Your task to perform on an android device: Go to settings Image 0: 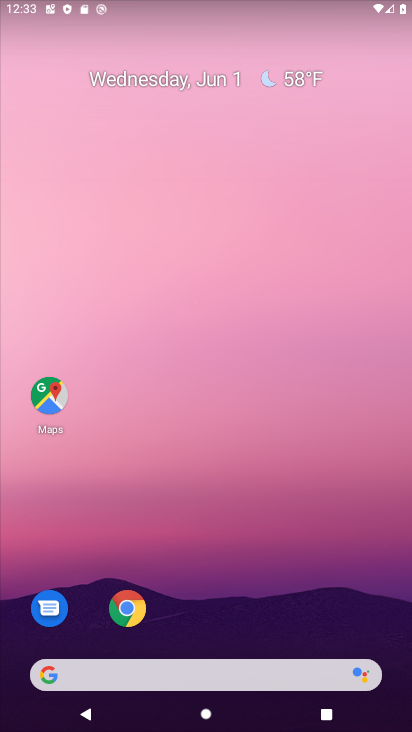
Step 0: click (208, 597)
Your task to perform on an android device: Go to settings Image 1: 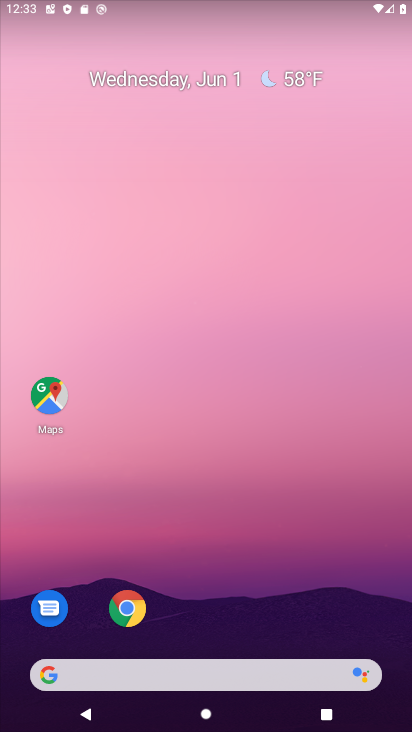
Step 1: drag from (208, 597) to (198, 142)
Your task to perform on an android device: Go to settings Image 2: 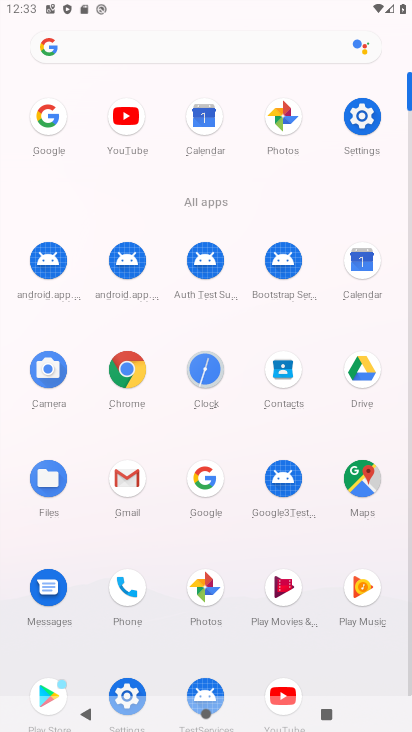
Step 2: click (362, 115)
Your task to perform on an android device: Go to settings Image 3: 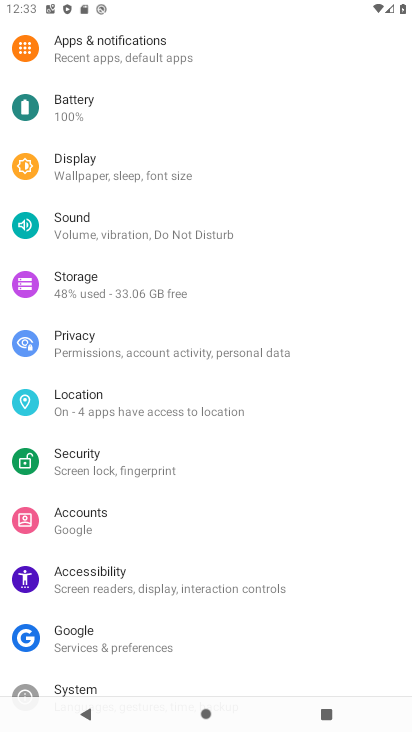
Step 3: task complete